Your task to perform on an android device: Open sound settings Image 0: 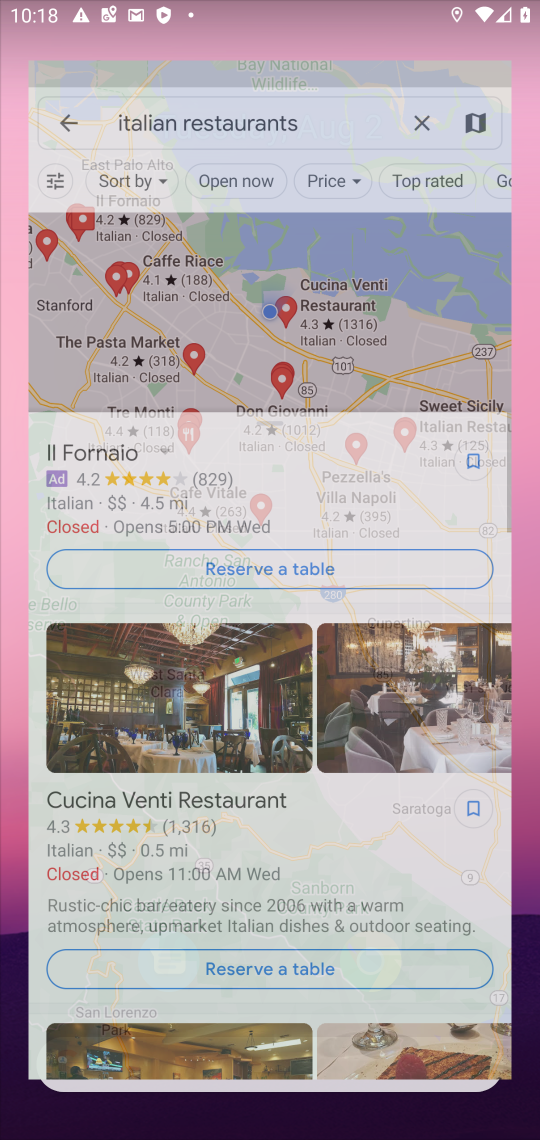
Step 0: press home button
Your task to perform on an android device: Open sound settings Image 1: 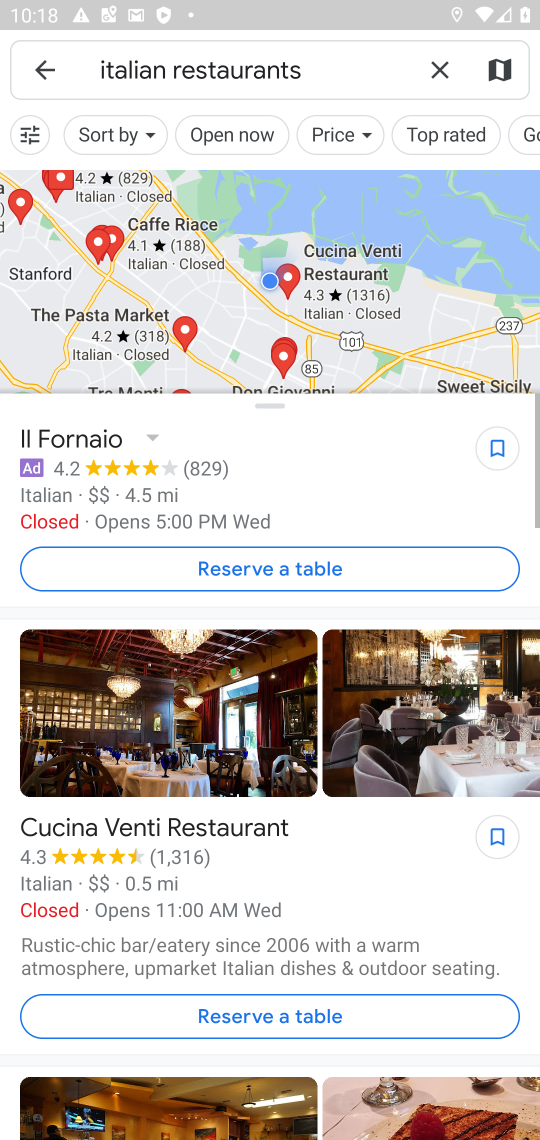
Step 1: press home button
Your task to perform on an android device: Open sound settings Image 2: 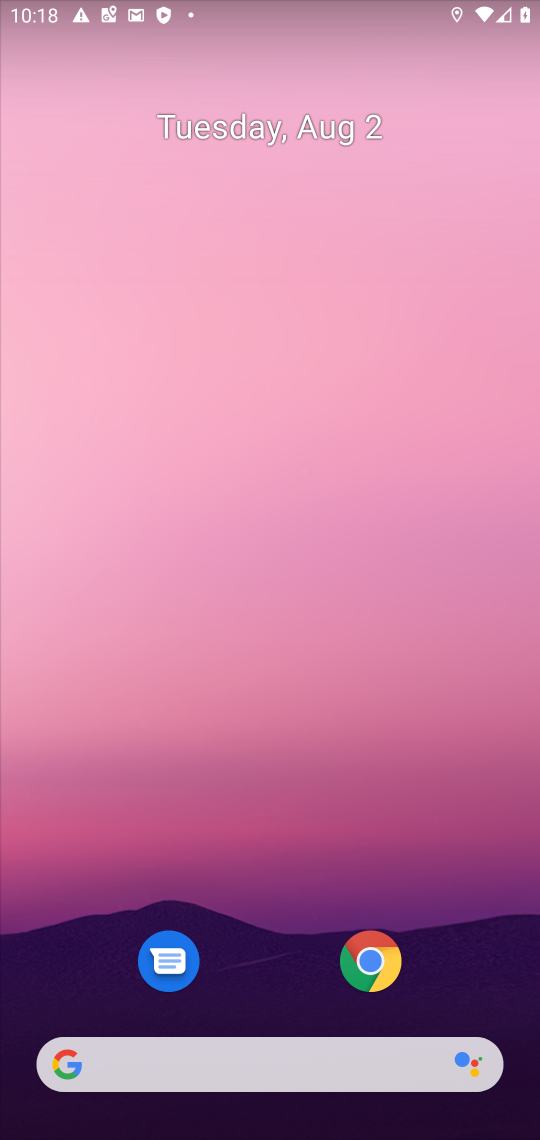
Step 2: press home button
Your task to perform on an android device: Open sound settings Image 3: 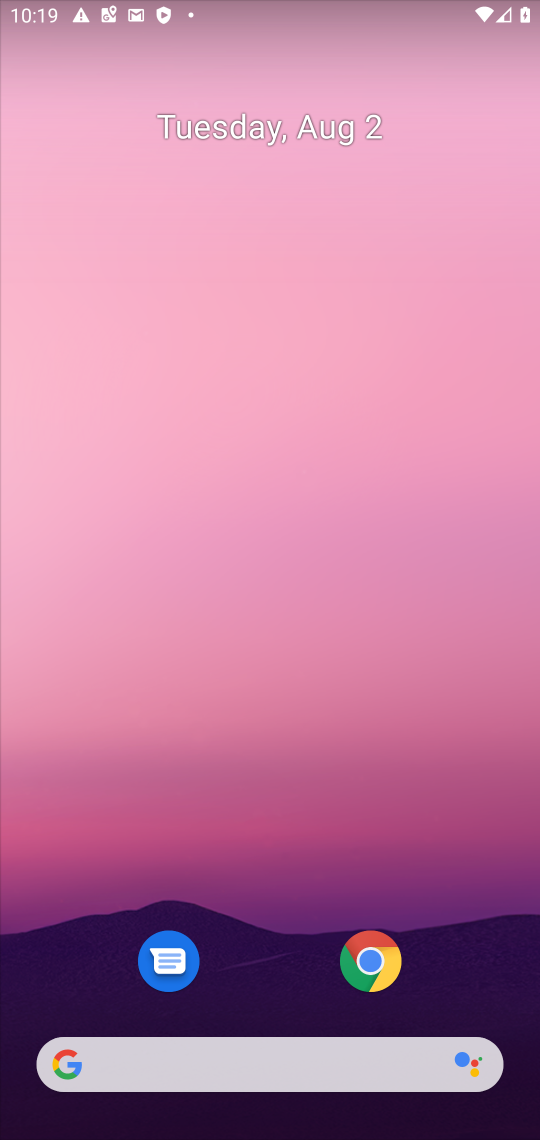
Step 3: drag from (234, 988) to (284, 148)
Your task to perform on an android device: Open sound settings Image 4: 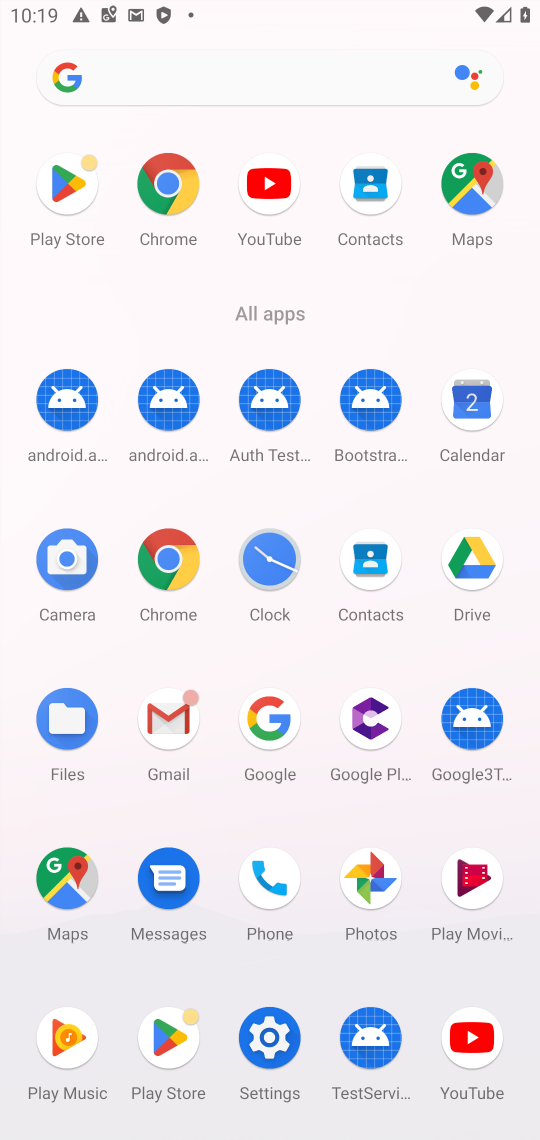
Step 4: click (53, 175)
Your task to perform on an android device: Open sound settings Image 5: 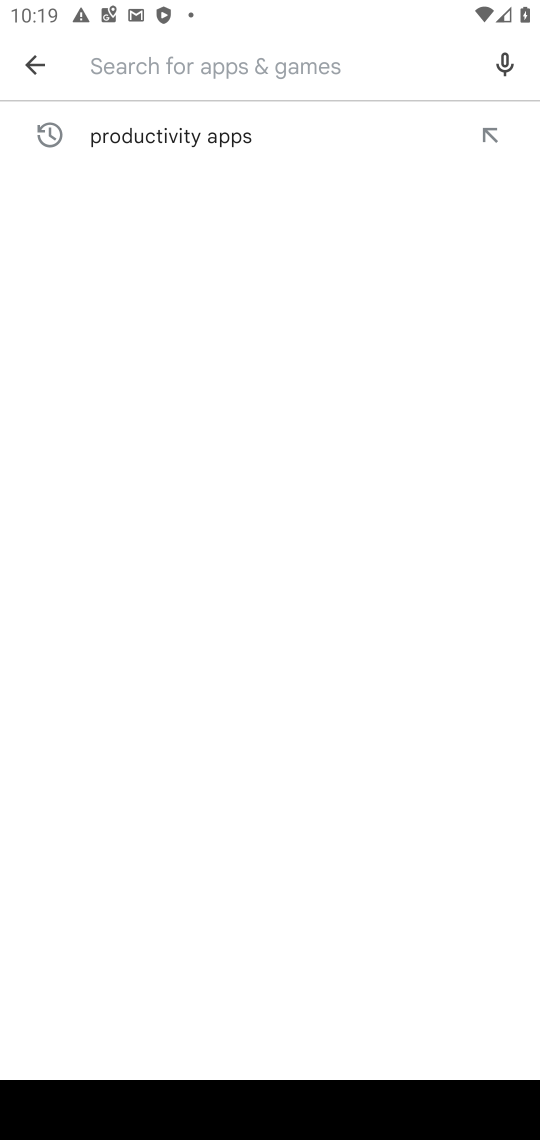
Step 5: press home button
Your task to perform on an android device: Open sound settings Image 6: 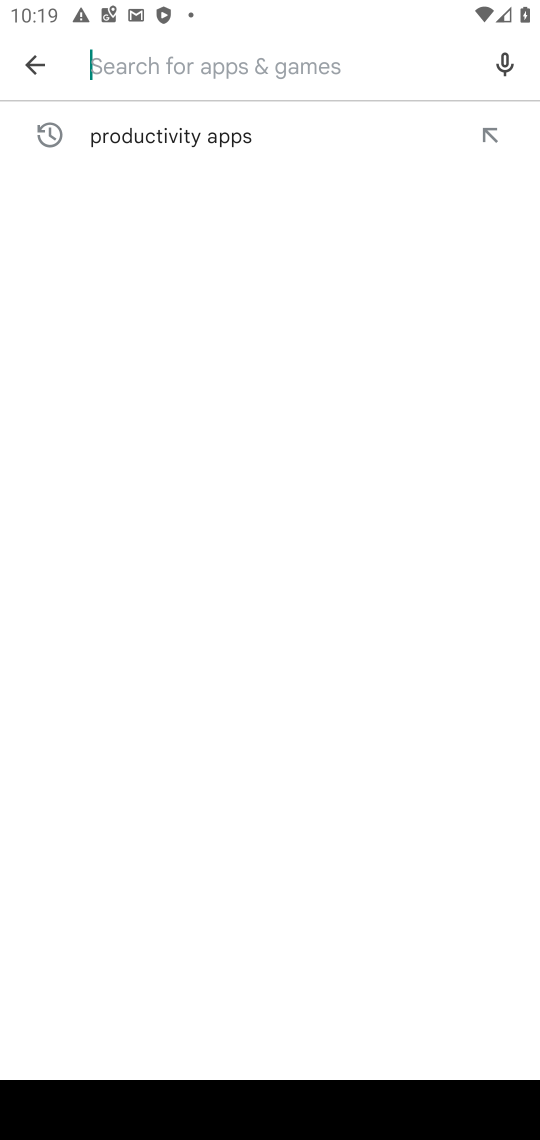
Step 6: press home button
Your task to perform on an android device: Open sound settings Image 7: 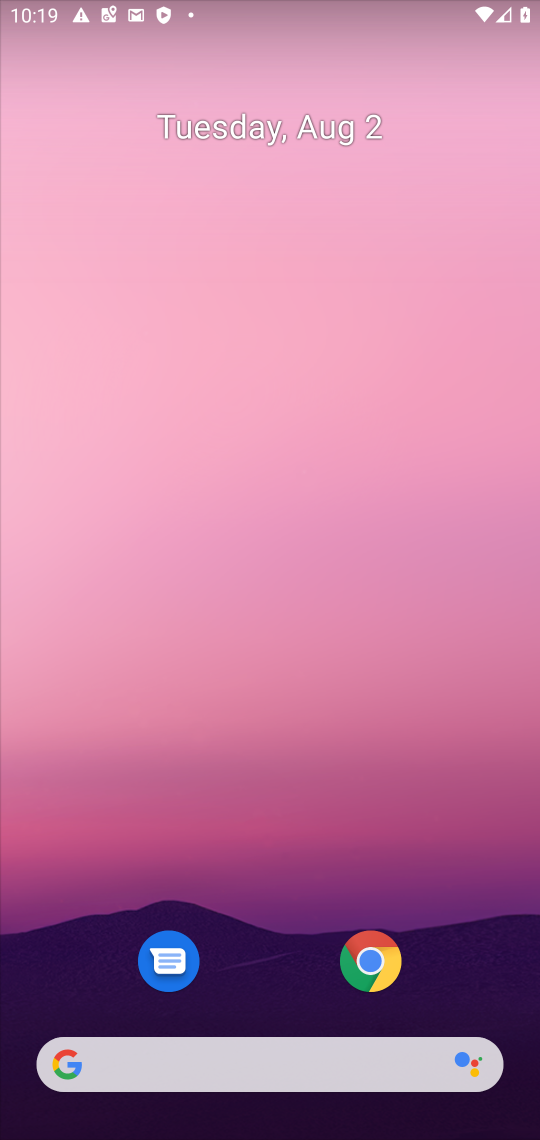
Step 7: drag from (308, 557) to (426, 92)
Your task to perform on an android device: Open sound settings Image 8: 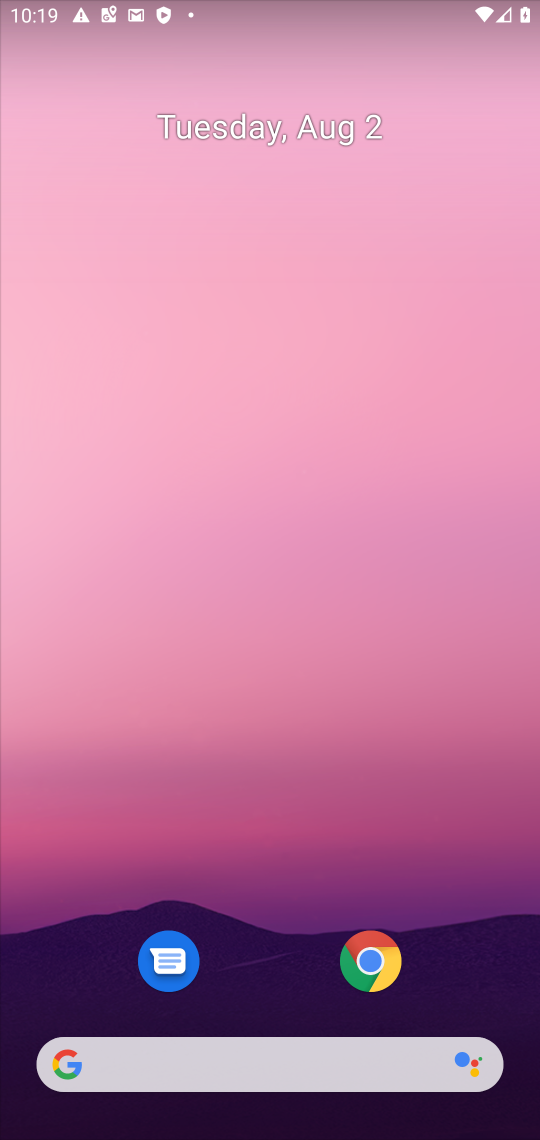
Step 8: drag from (294, 821) to (325, 58)
Your task to perform on an android device: Open sound settings Image 9: 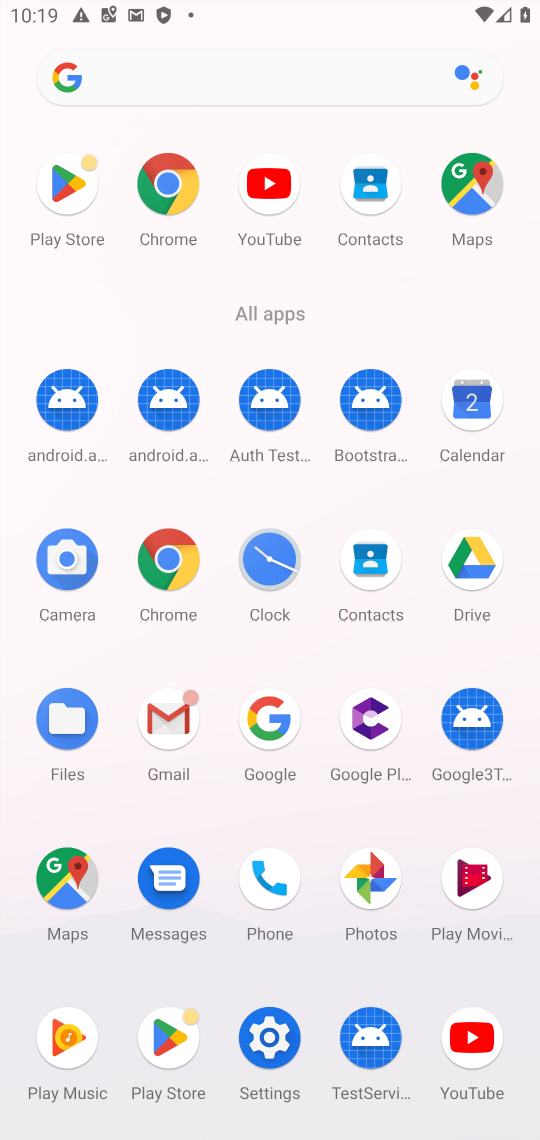
Step 9: click (284, 1028)
Your task to perform on an android device: Open sound settings Image 10: 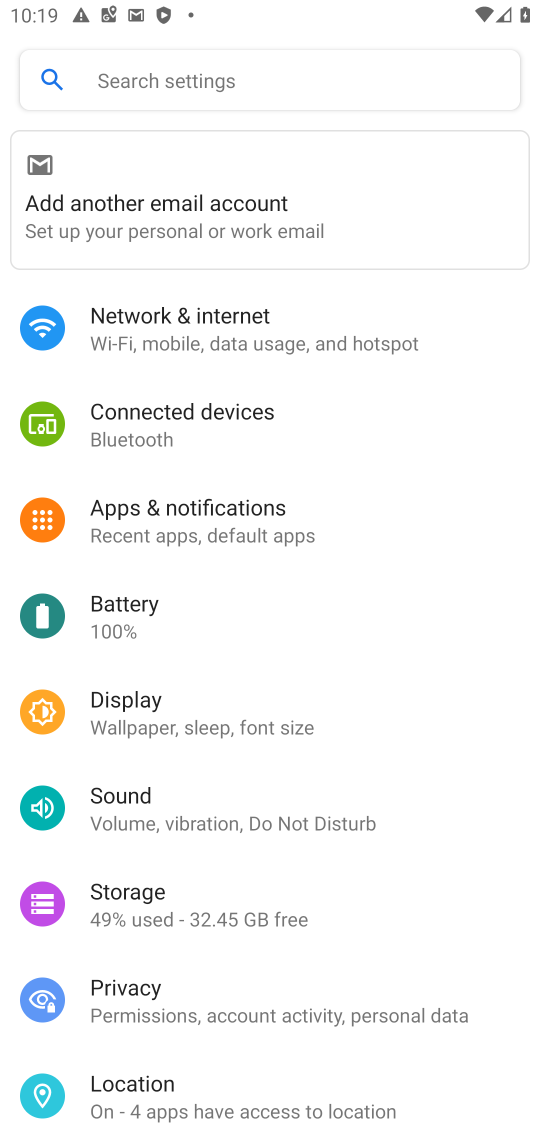
Step 10: click (117, 801)
Your task to perform on an android device: Open sound settings Image 11: 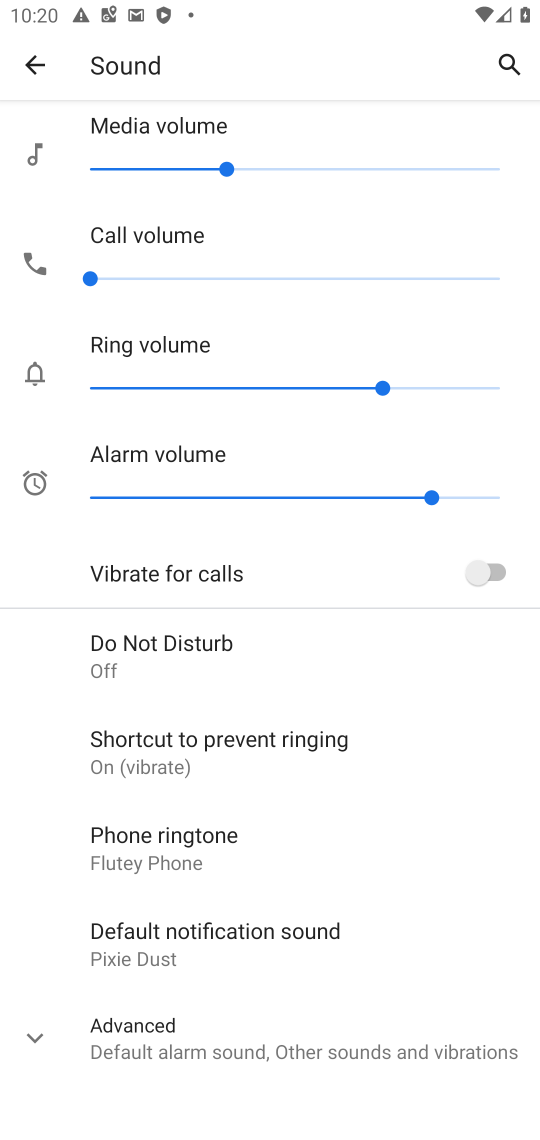
Step 11: task complete